Your task to perform on an android device: What's on my calendar today? Image 0: 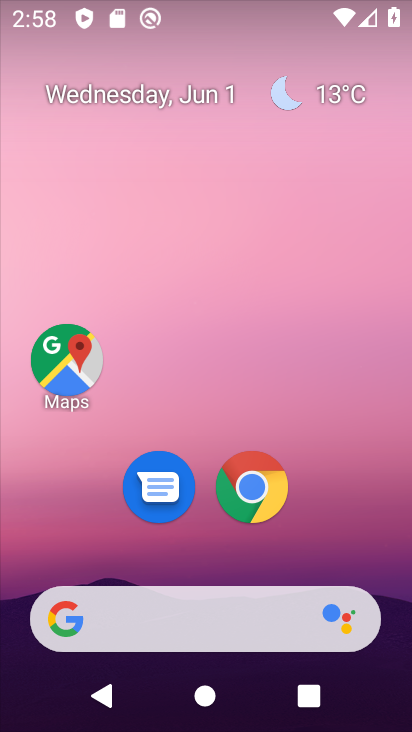
Step 0: drag from (351, 555) to (265, 152)
Your task to perform on an android device: What's on my calendar today? Image 1: 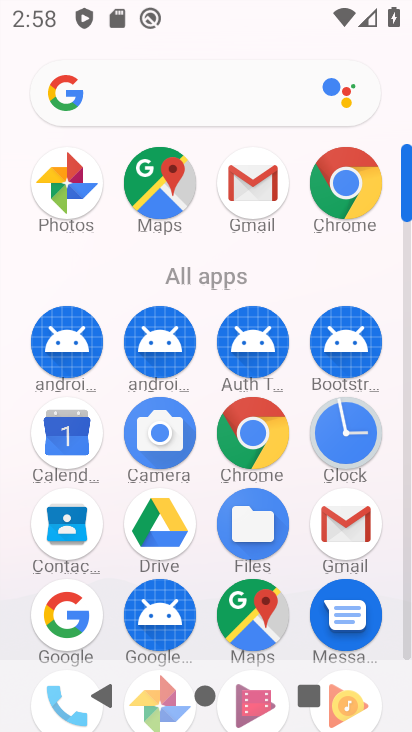
Step 1: click (54, 432)
Your task to perform on an android device: What's on my calendar today? Image 2: 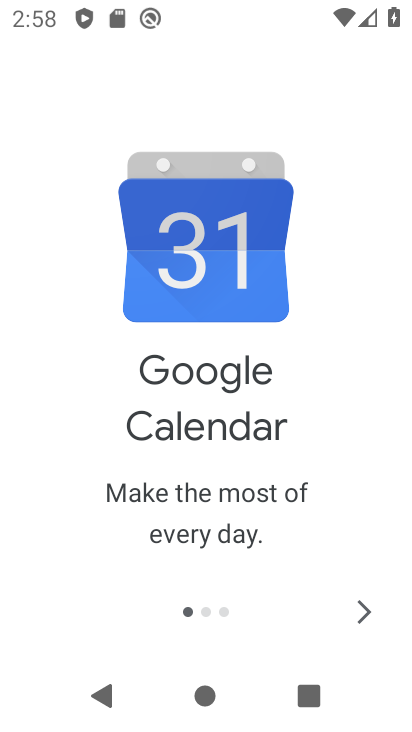
Step 2: click (366, 619)
Your task to perform on an android device: What's on my calendar today? Image 3: 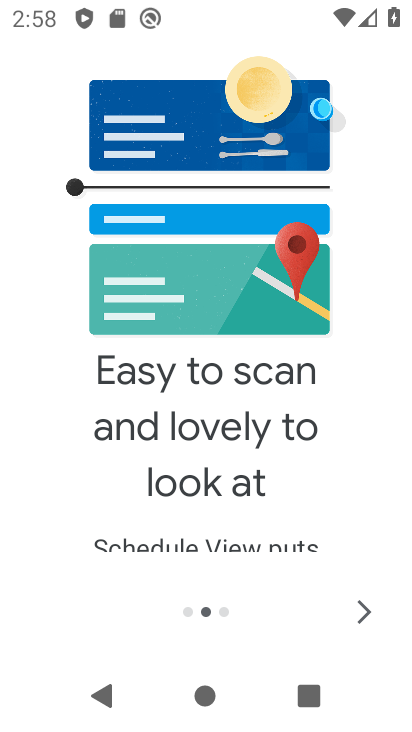
Step 3: click (369, 605)
Your task to perform on an android device: What's on my calendar today? Image 4: 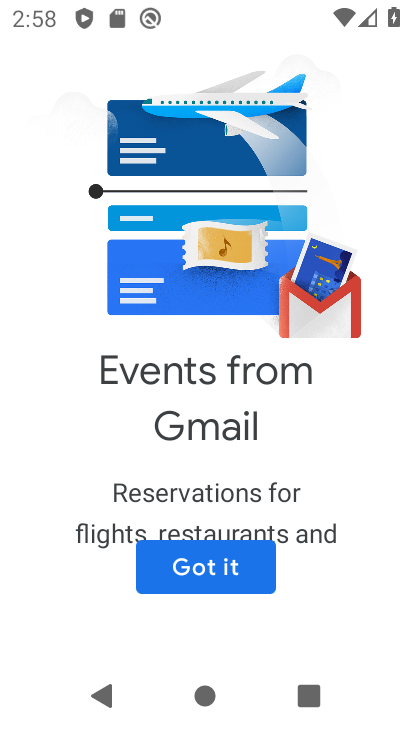
Step 4: click (201, 556)
Your task to perform on an android device: What's on my calendar today? Image 5: 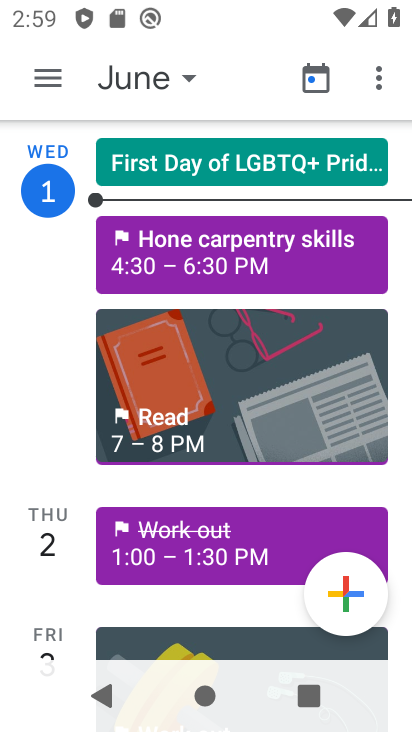
Step 5: task complete